Your task to perform on an android device: toggle notification dots Image 0: 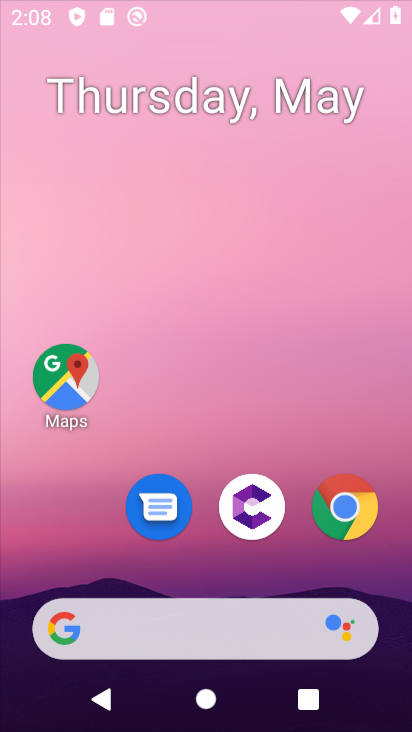
Step 0: press home button
Your task to perform on an android device: toggle notification dots Image 1: 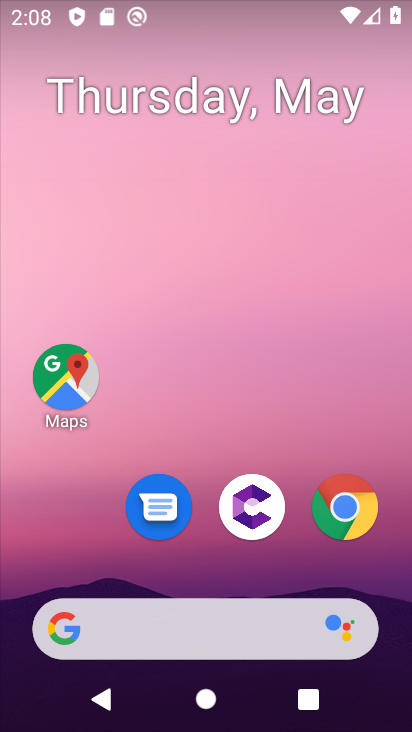
Step 1: drag from (244, 572) to (226, 88)
Your task to perform on an android device: toggle notification dots Image 2: 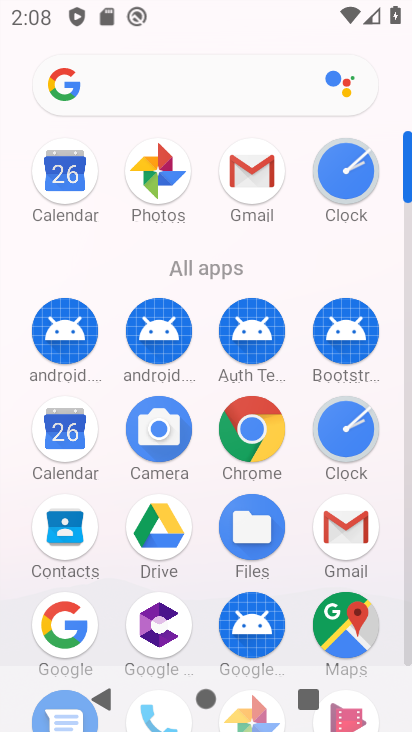
Step 2: drag from (387, 666) to (297, 207)
Your task to perform on an android device: toggle notification dots Image 3: 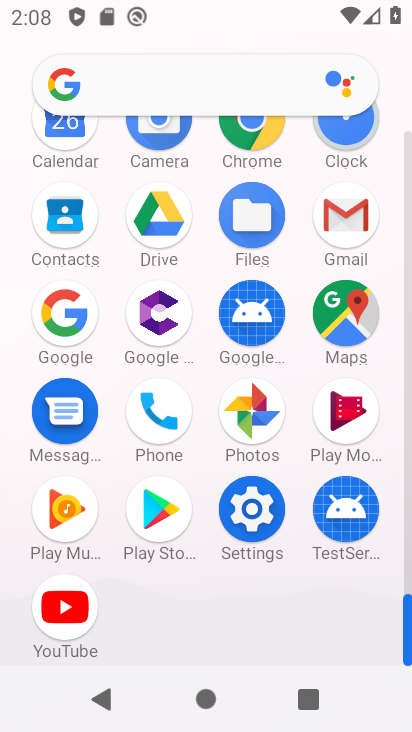
Step 3: click (258, 507)
Your task to perform on an android device: toggle notification dots Image 4: 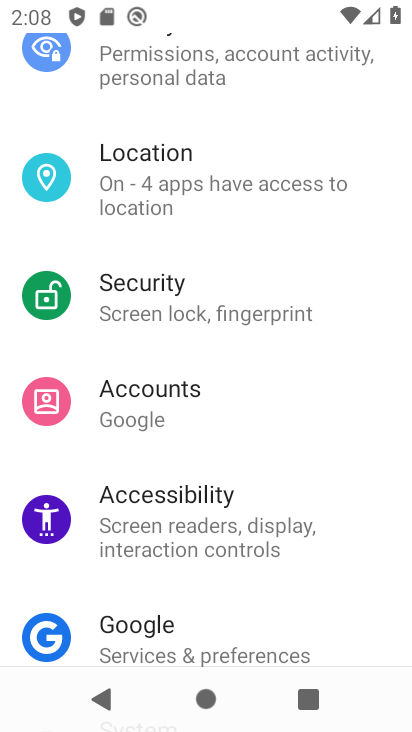
Step 4: drag from (304, 265) to (324, 663)
Your task to perform on an android device: toggle notification dots Image 5: 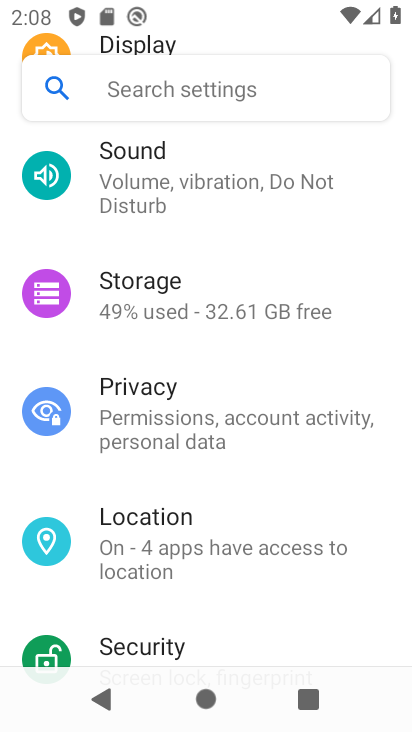
Step 5: drag from (252, 252) to (290, 565)
Your task to perform on an android device: toggle notification dots Image 6: 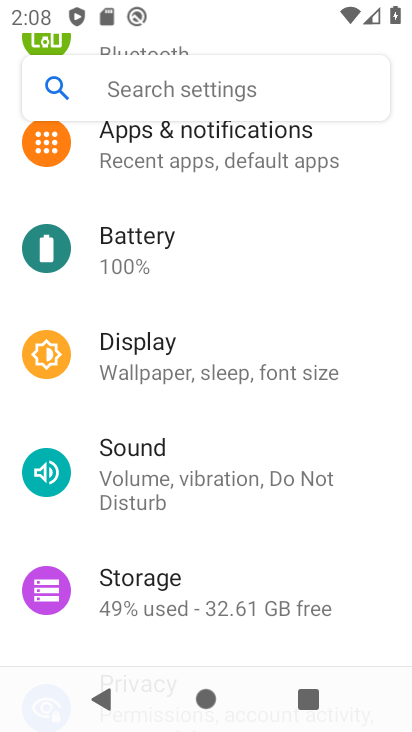
Step 6: click (219, 144)
Your task to perform on an android device: toggle notification dots Image 7: 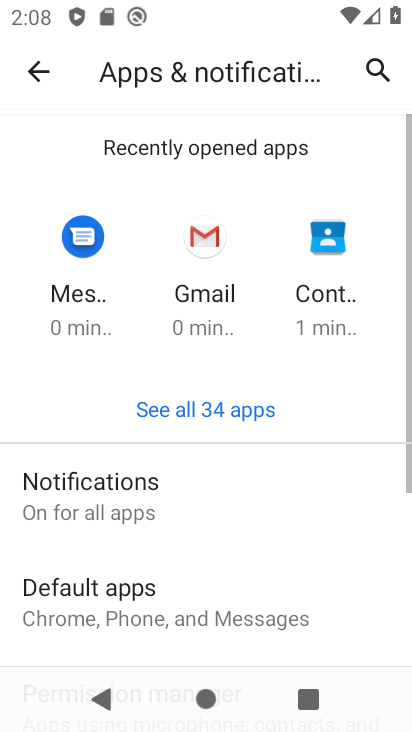
Step 7: click (73, 497)
Your task to perform on an android device: toggle notification dots Image 8: 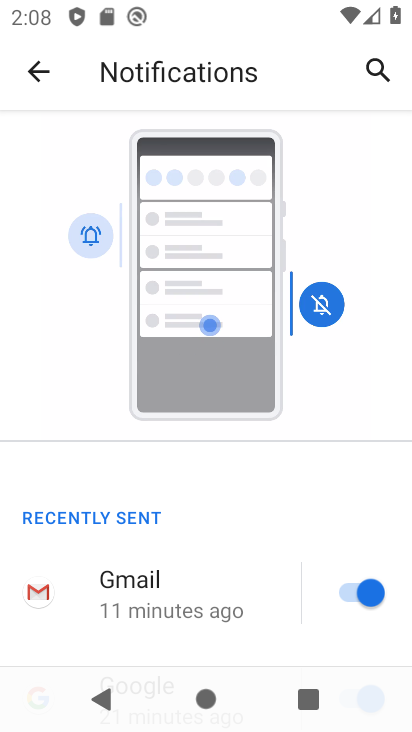
Step 8: drag from (338, 540) to (245, 0)
Your task to perform on an android device: toggle notification dots Image 9: 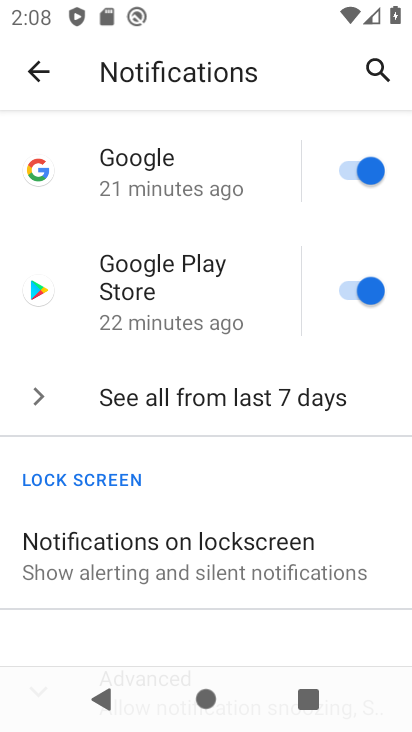
Step 9: drag from (202, 509) to (208, 182)
Your task to perform on an android device: toggle notification dots Image 10: 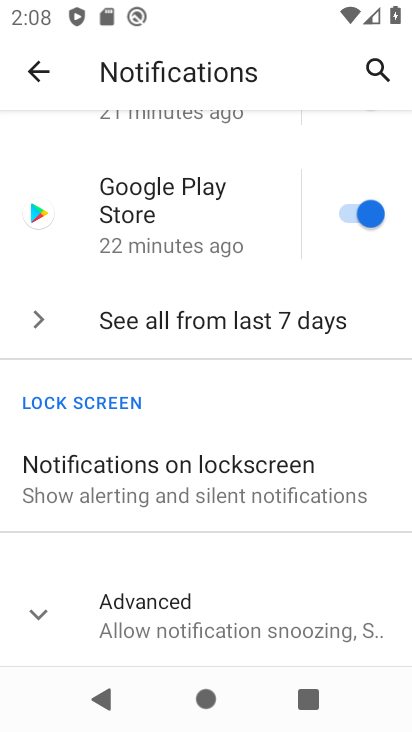
Step 10: click (148, 632)
Your task to perform on an android device: toggle notification dots Image 11: 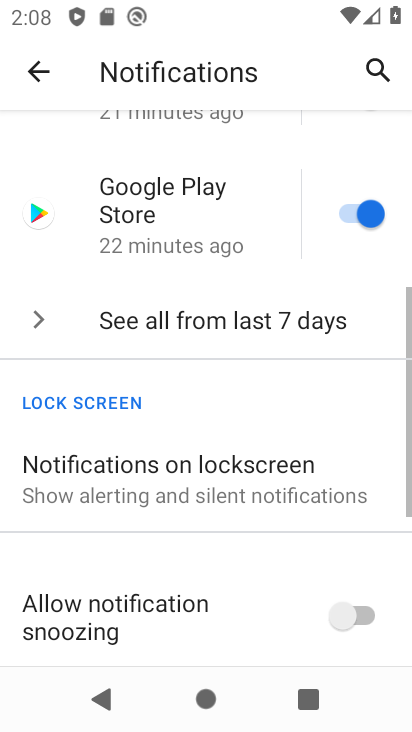
Step 11: drag from (211, 612) to (175, 347)
Your task to perform on an android device: toggle notification dots Image 12: 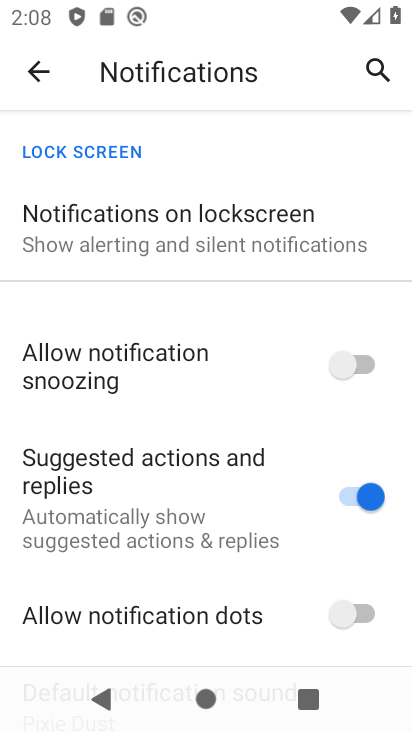
Step 12: click (354, 616)
Your task to perform on an android device: toggle notification dots Image 13: 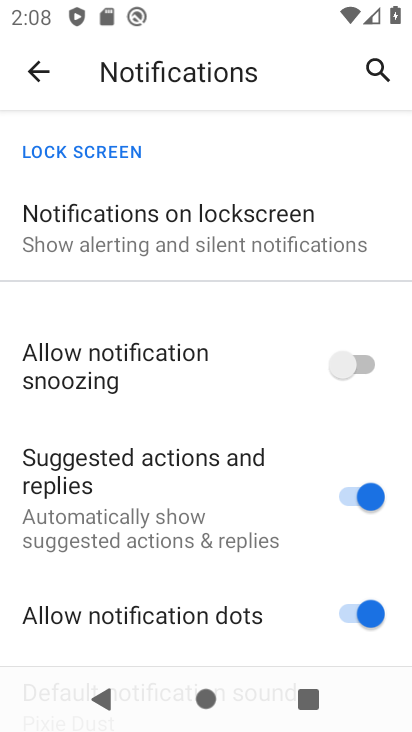
Step 13: task complete